Your task to perform on an android device: Show the shopping cart on costco.com. Image 0: 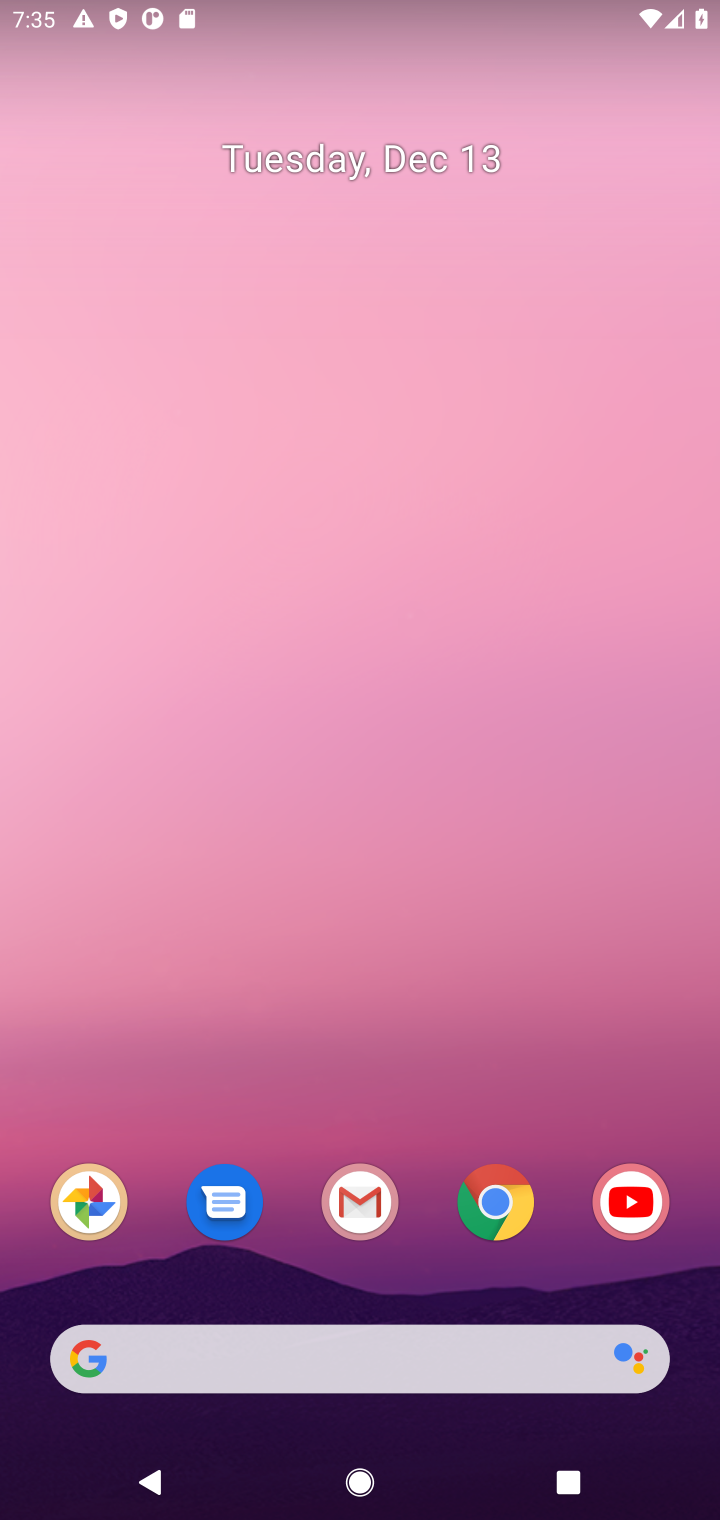
Step 0: click (489, 1226)
Your task to perform on an android device: Show the shopping cart on costco.com. Image 1: 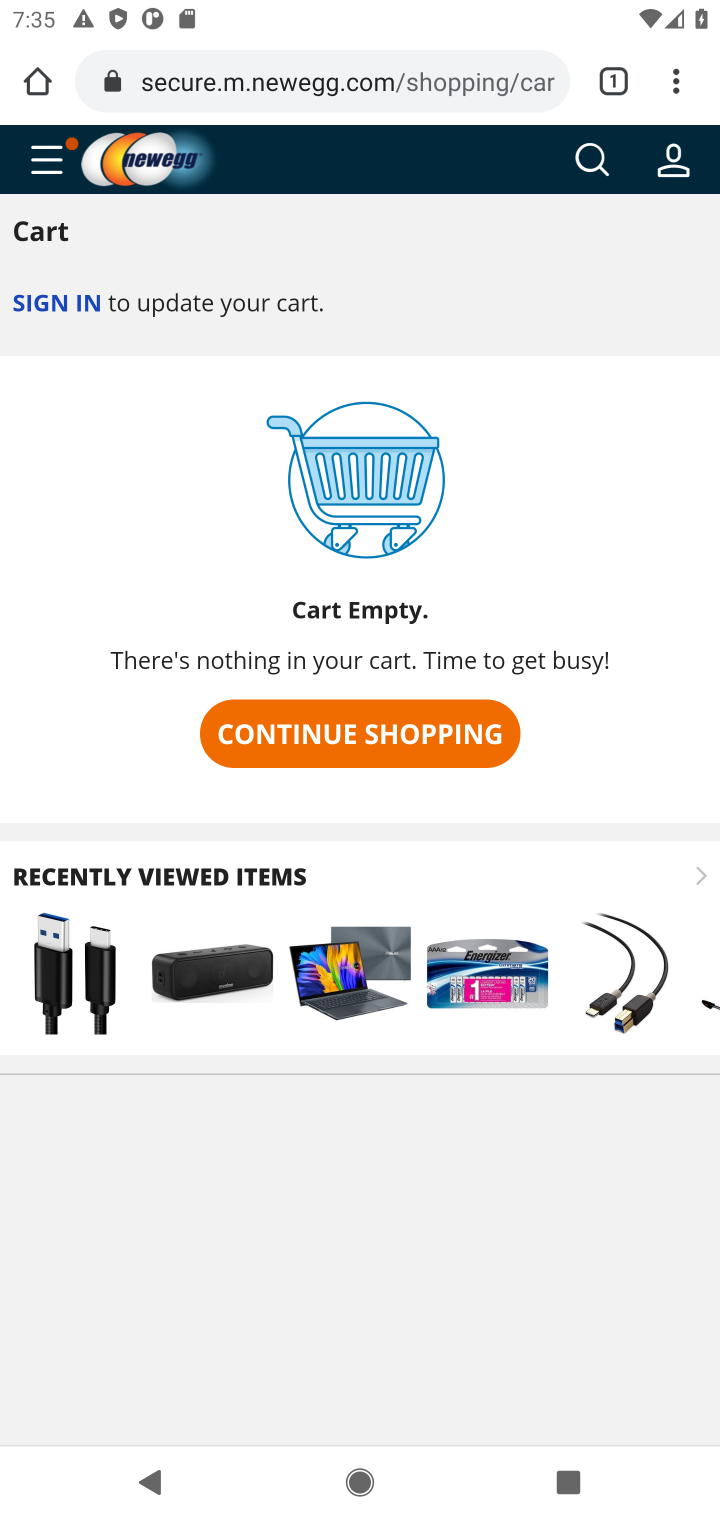
Step 1: click (272, 90)
Your task to perform on an android device: Show the shopping cart on costco.com. Image 2: 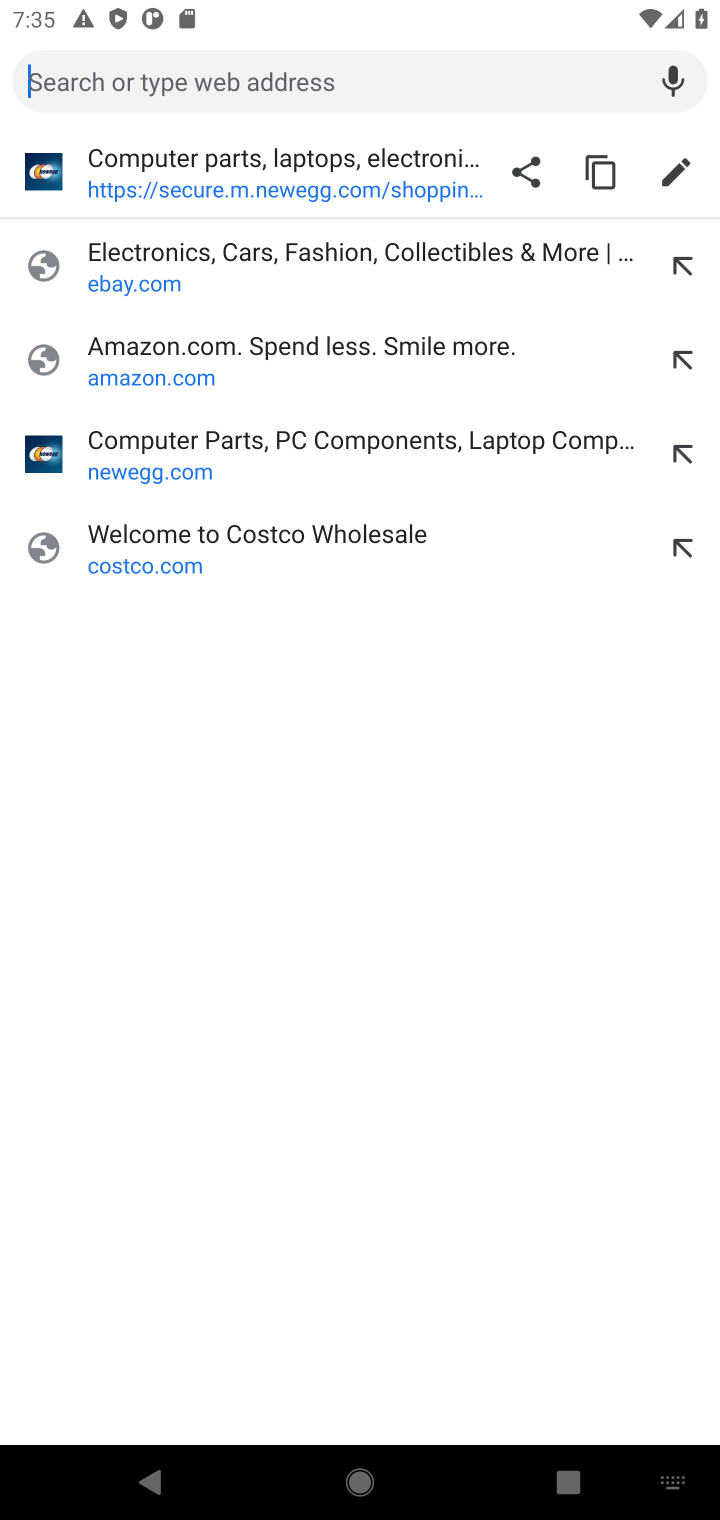
Step 2: click (132, 546)
Your task to perform on an android device: Show the shopping cart on costco.com. Image 3: 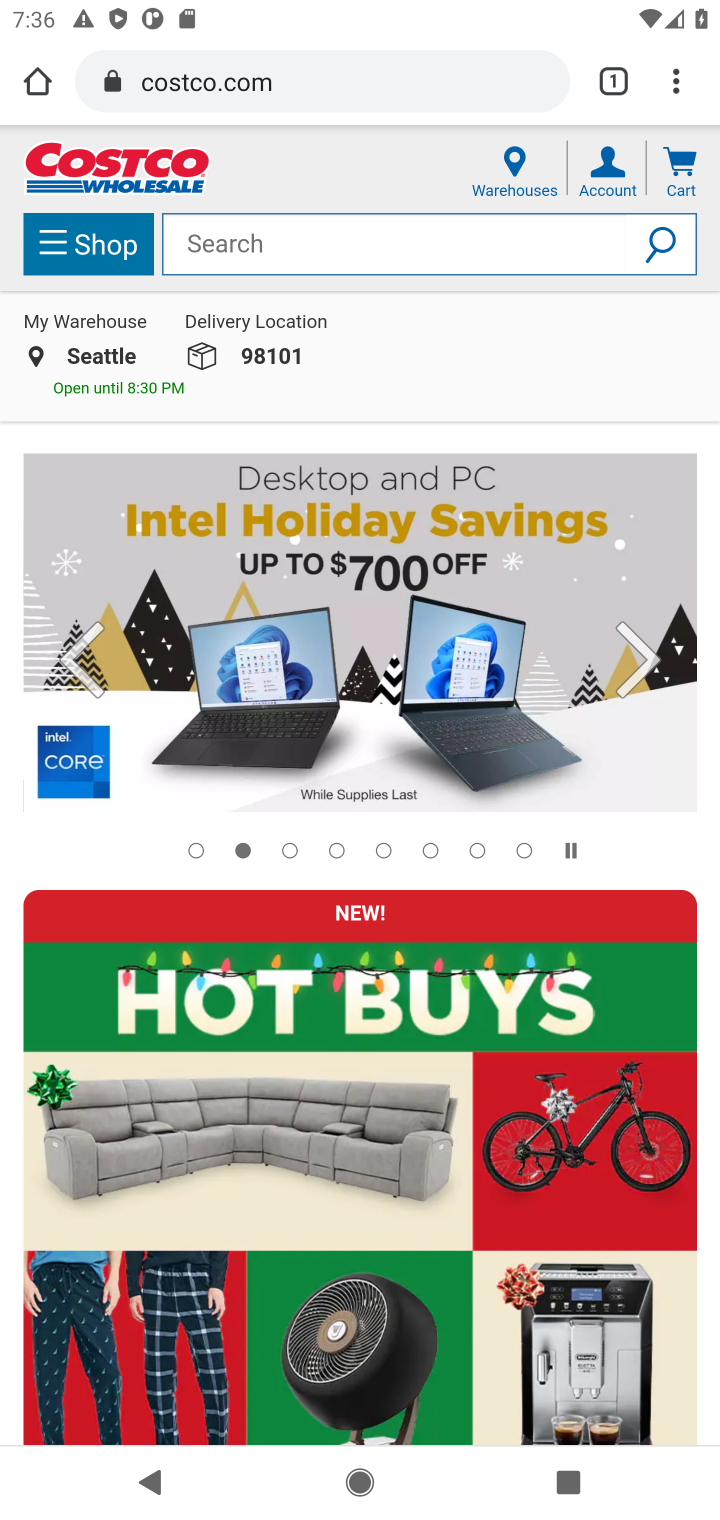
Step 3: click (681, 177)
Your task to perform on an android device: Show the shopping cart on costco.com. Image 4: 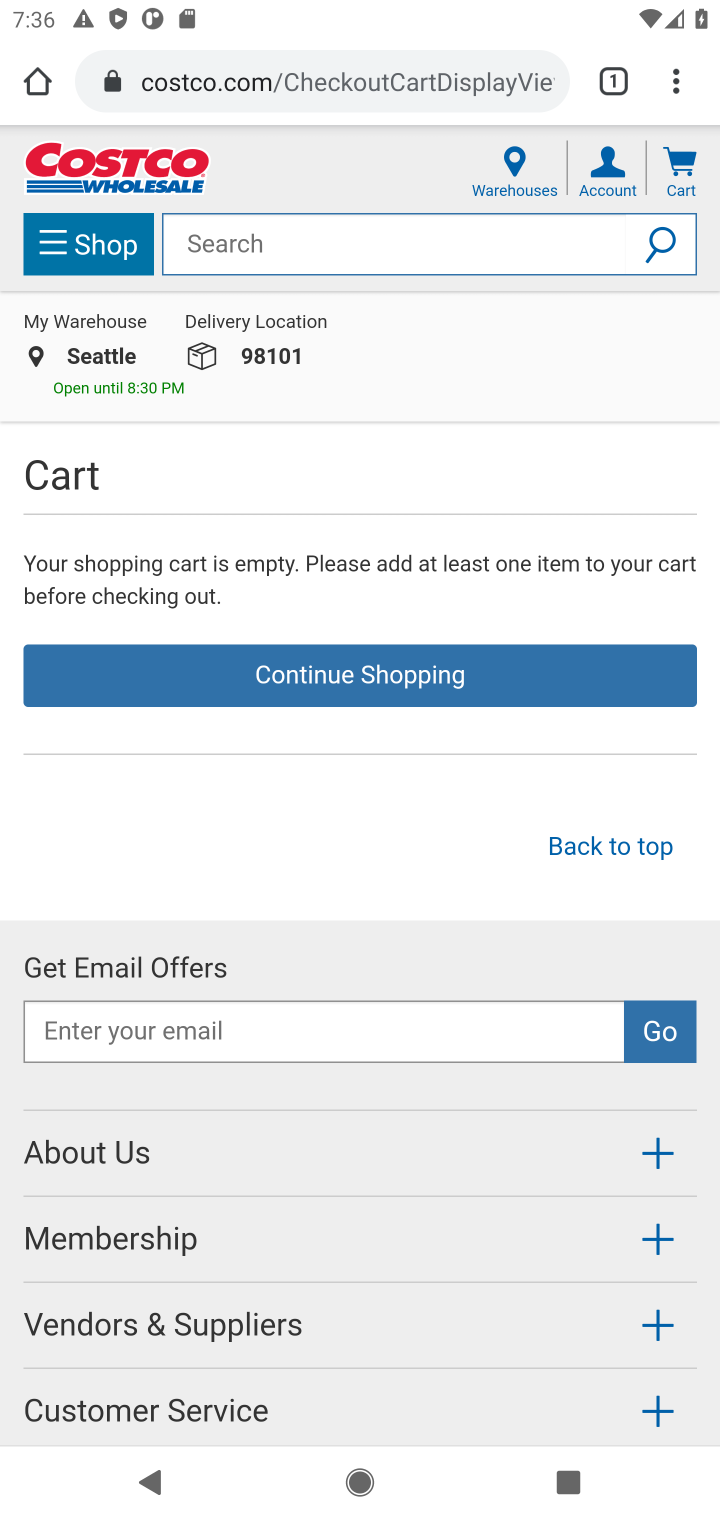
Step 4: task complete